Your task to perform on an android device: turn off location Image 0: 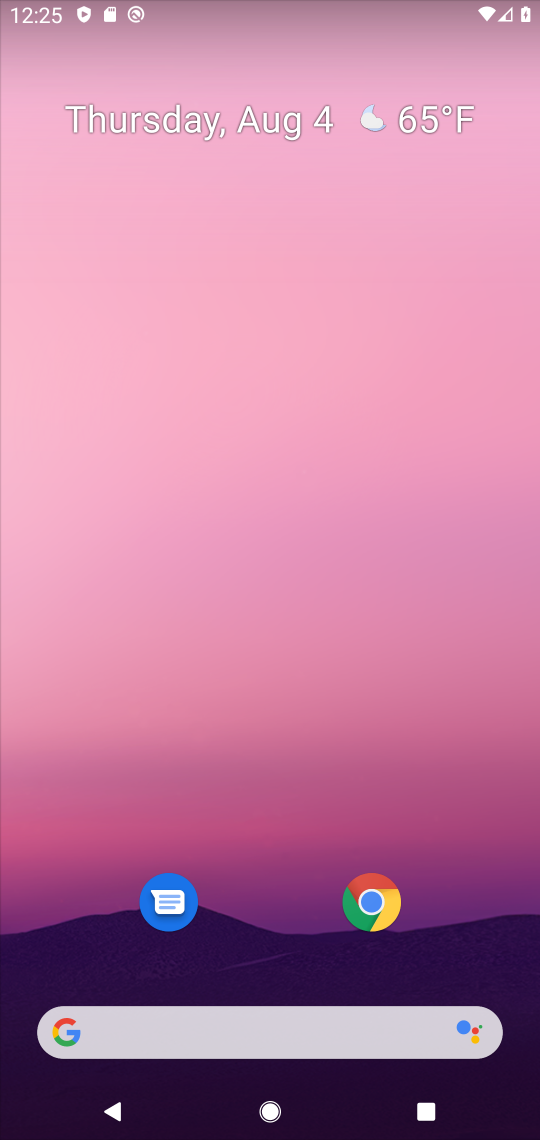
Step 0: drag from (483, 919) to (450, 199)
Your task to perform on an android device: turn off location Image 1: 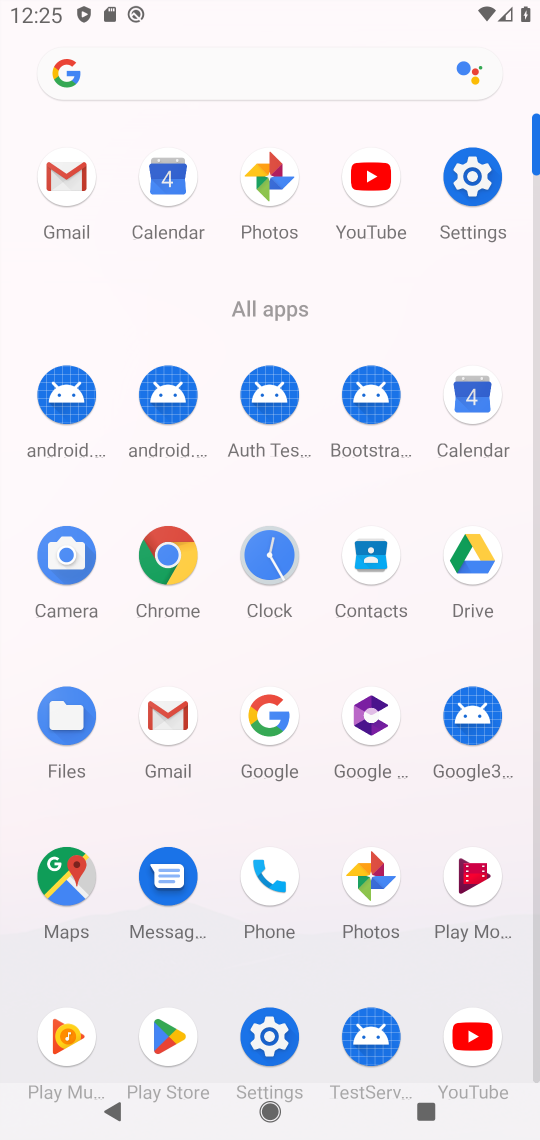
Step 1: click (274, 1037)
Your task to perform on an android device: turn off location Image 2: 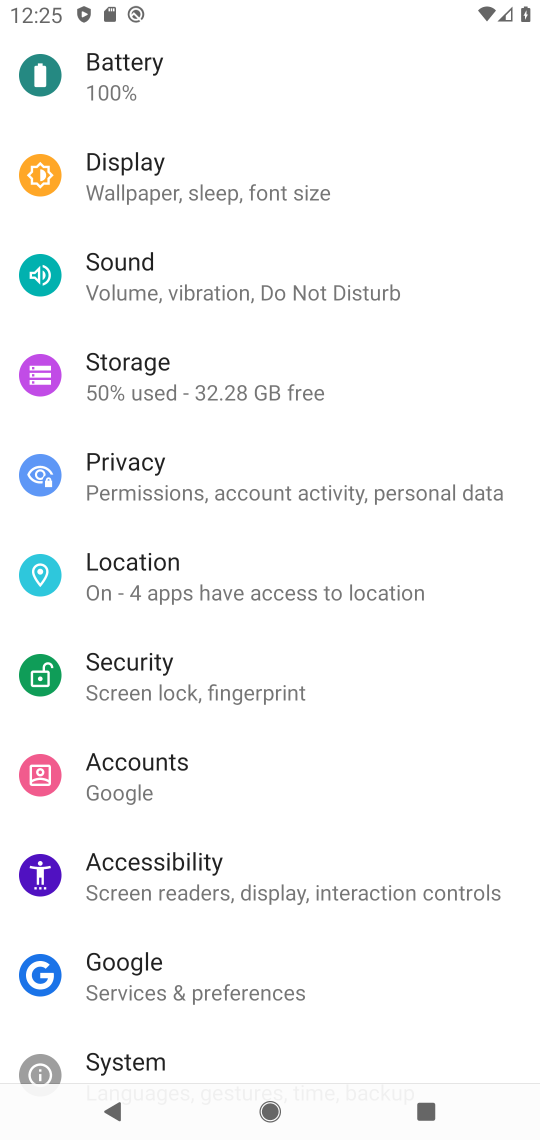
Step 2: click (154, 575)
Your task to perform on an android device: turn off location Image 3: 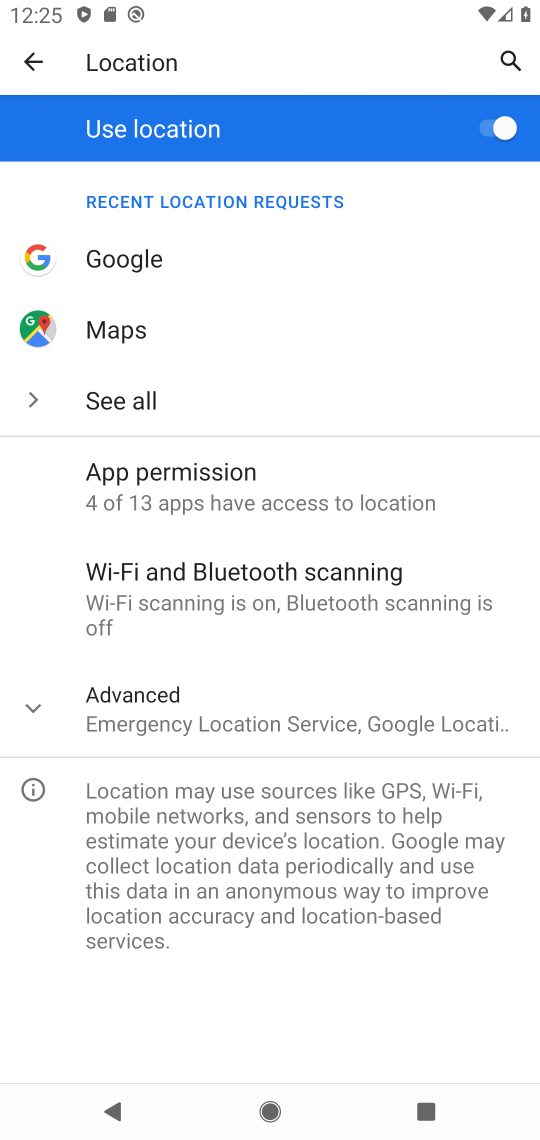
Step 3: click (490, 125)
Your task to perform on an android device: turn off location Image 4: 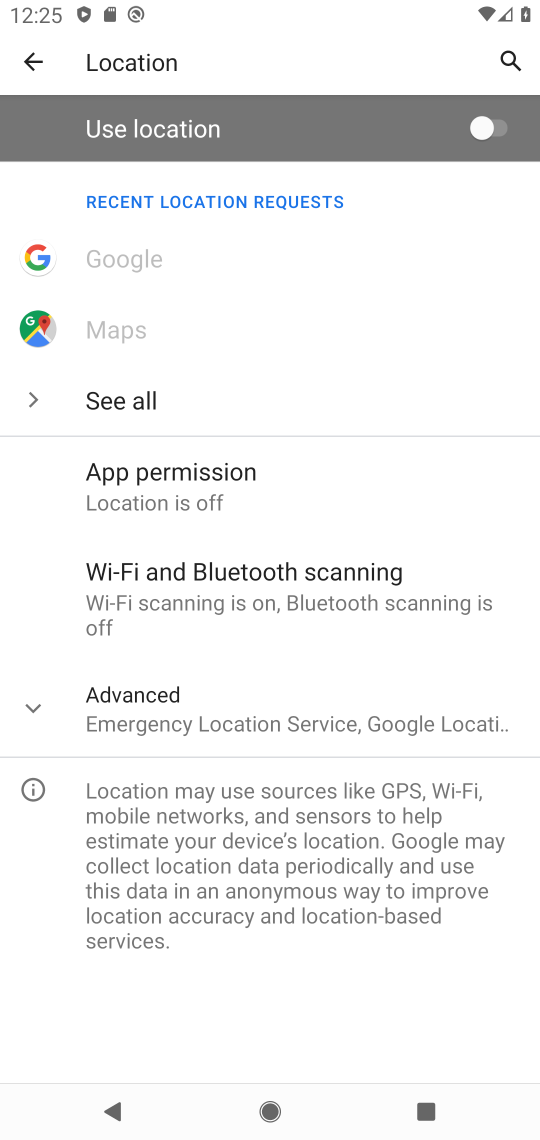
Step 4: task complete